Your task to perform on an android device: check data usage Image 0: 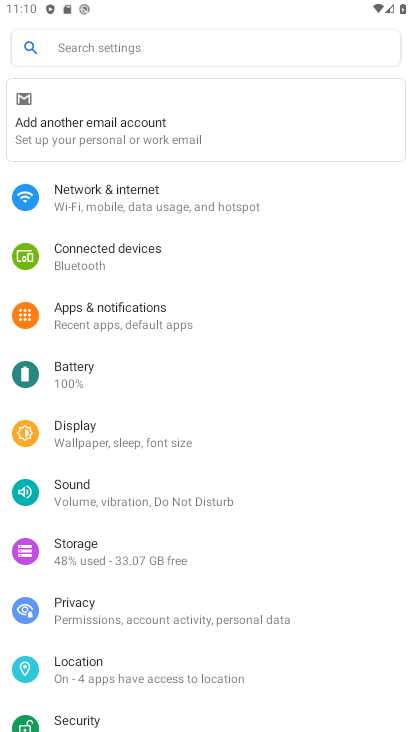
Step 0: drag from (141, 232) to (189, 565)
Your task to perform on an android device: check data usage Image 1: 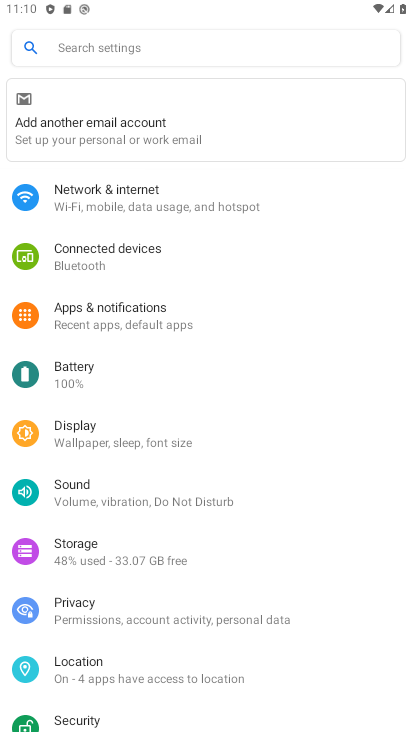
Step 1: click (202, 200)
Your task to perform on an android device: check data usage Image 2: 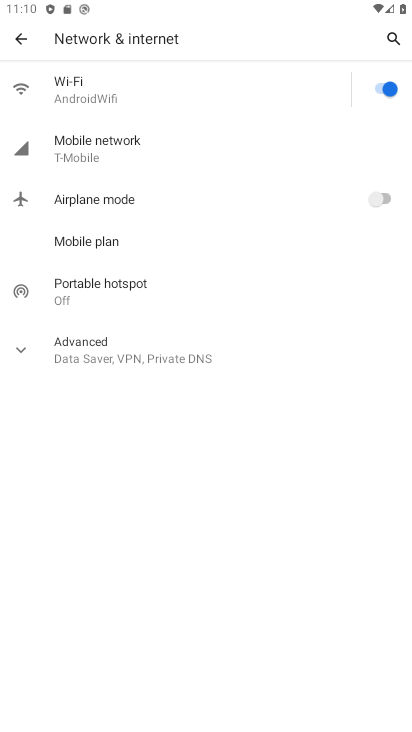
Step 2: click (136, 145)
Your task to perform on an android device: check data usage Image 3: 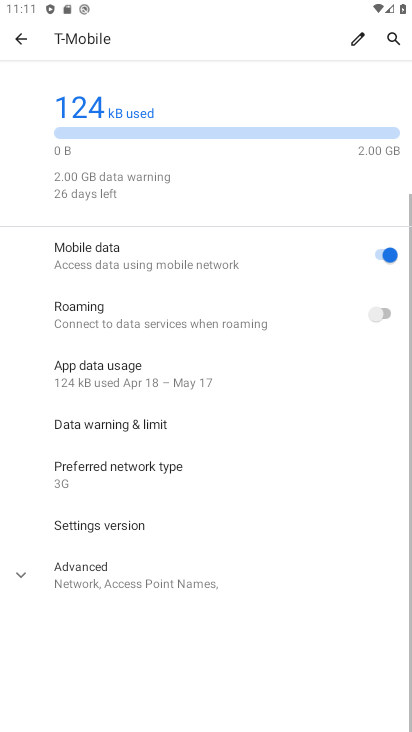
Step 3: task complete